Your task to perform on an android device: Search for the best selling phone on AliExpress Image 0: 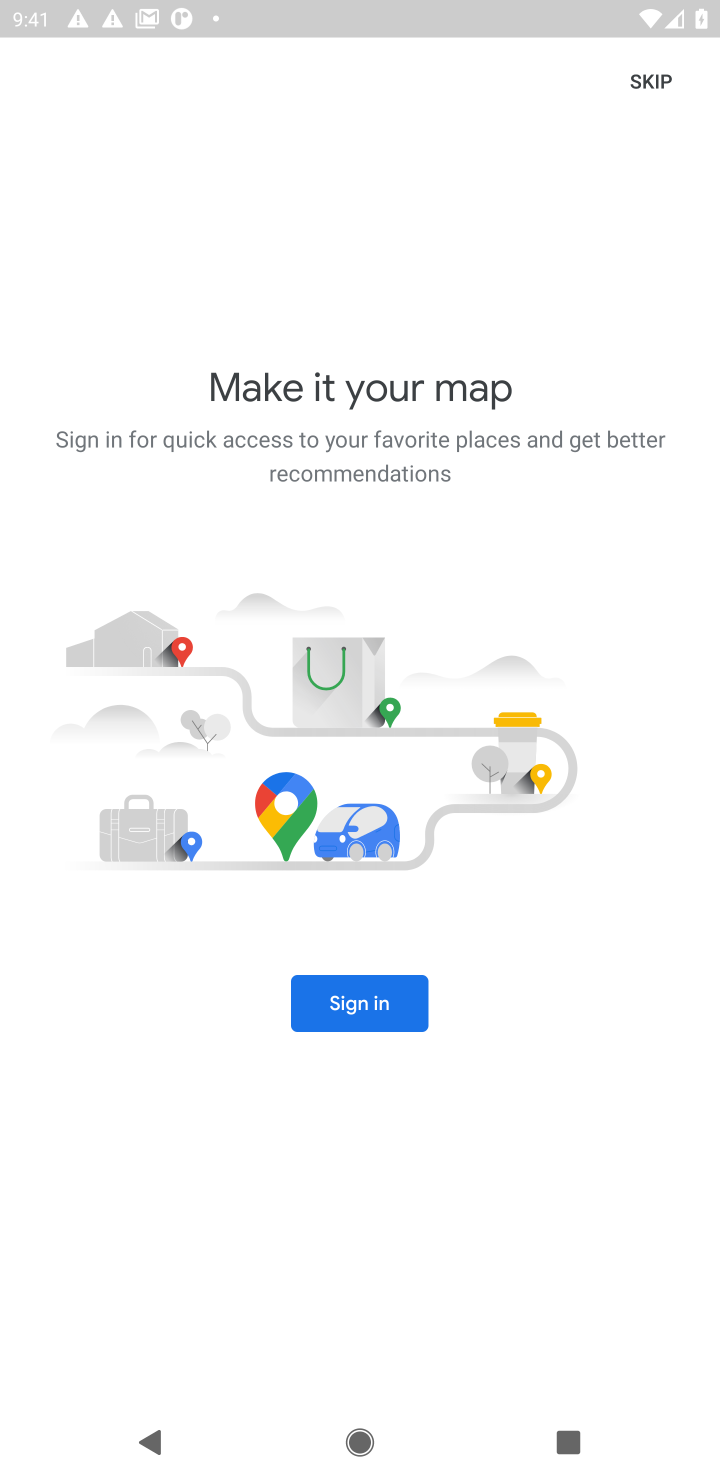
Step 0: press home button
Your task to perform on an android device: Search for the best selling phone on AliExpress Image 1: 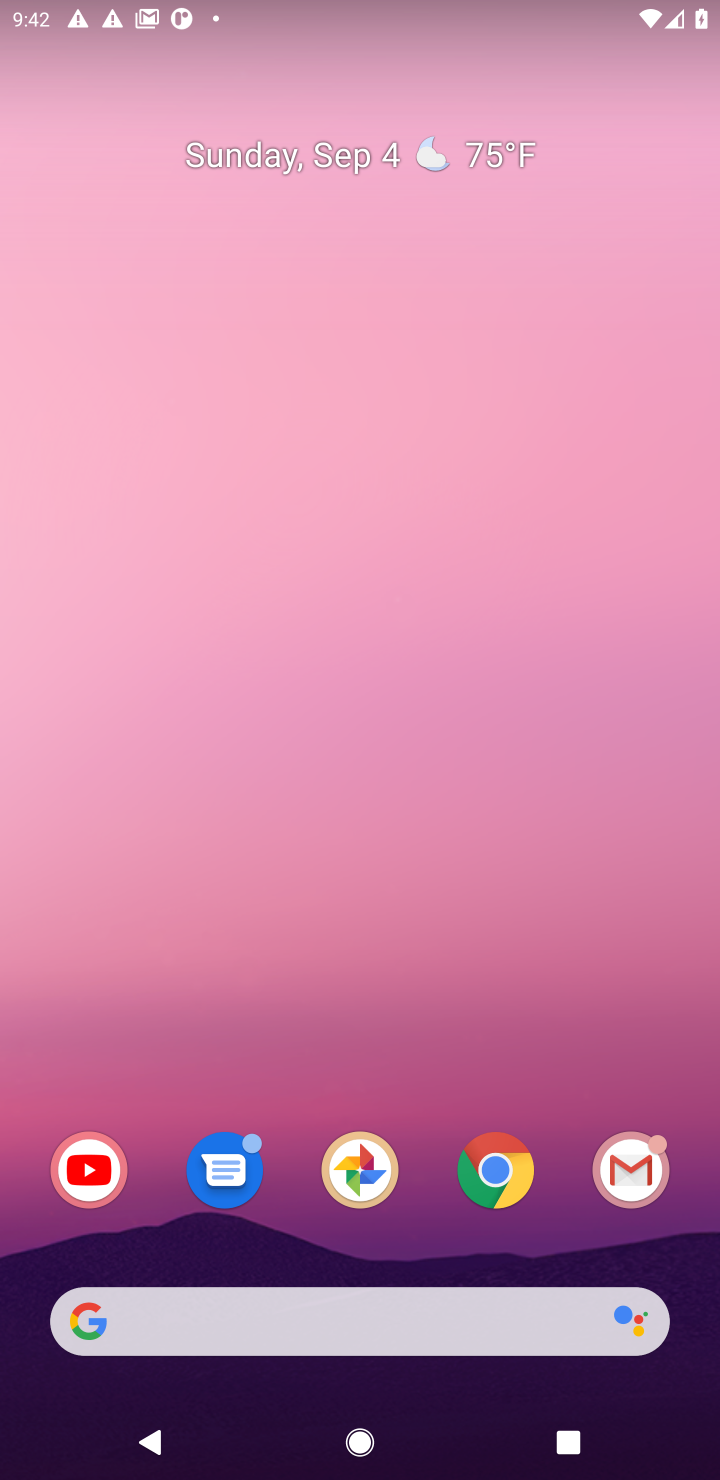
Step 1: click (493, 1155)
Your task to perform on an android device: Search for the best selling phone on AliExpress Image 2: 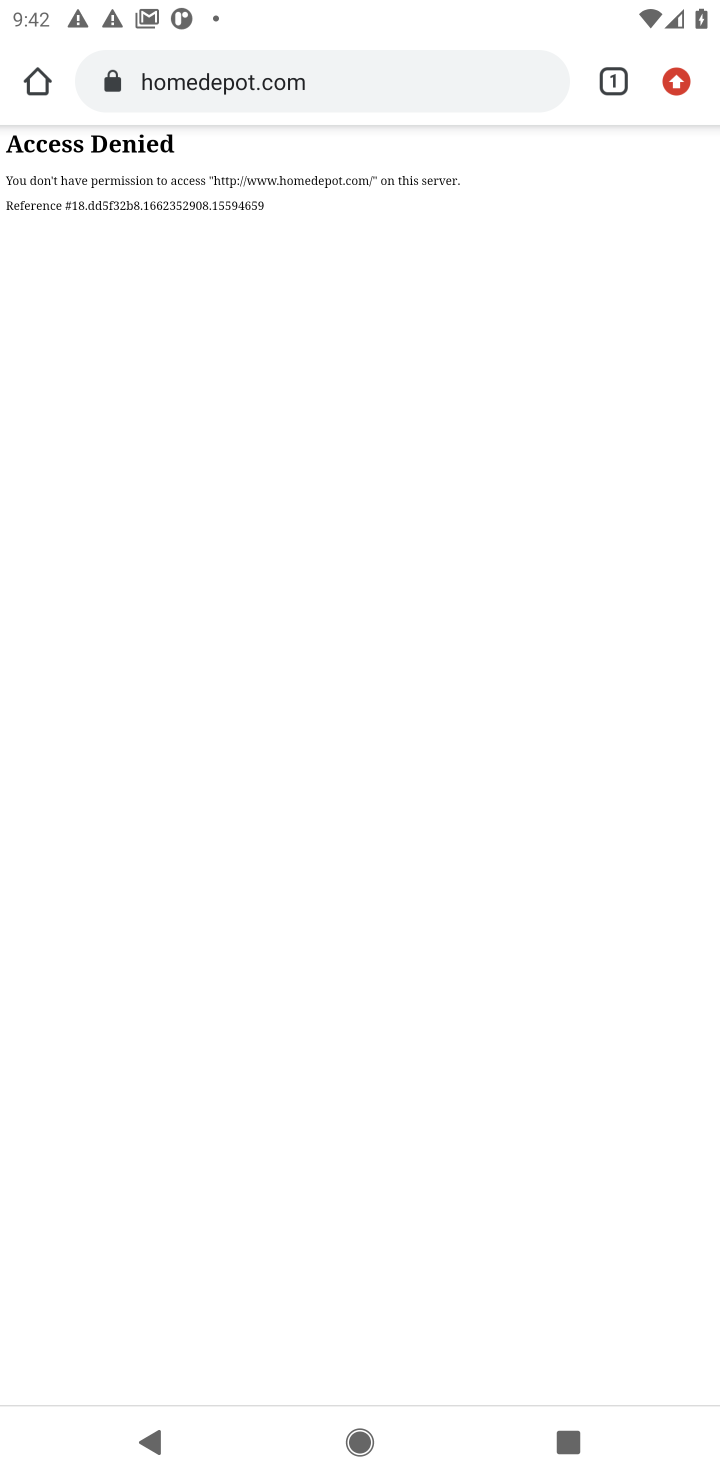
Step 2: click (310, 78)
Your task to perform on an android device: Search for the best selling phone on AliExpress Image 3: 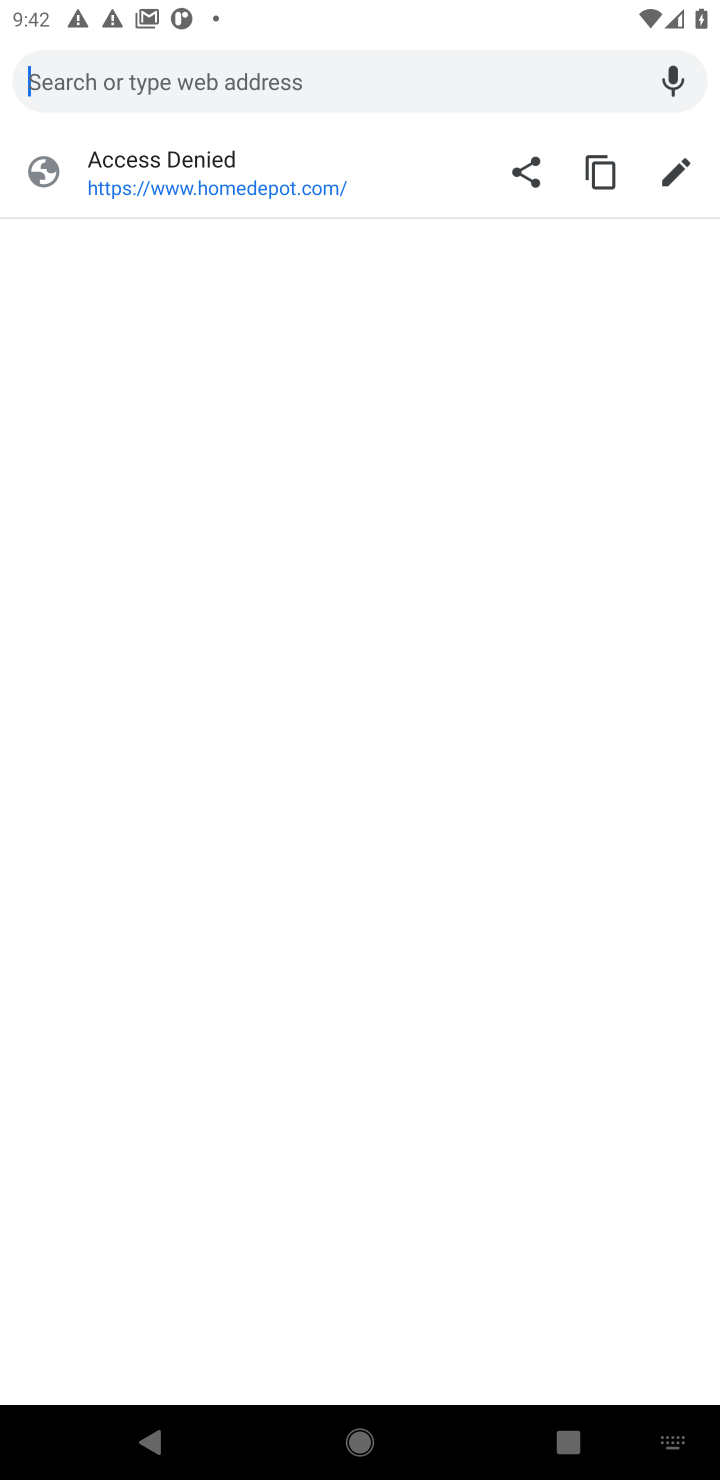
Step 3: type "AliExpress"
Your task to perform on an android device: Search for the best selling phone on AliExpress Image 4: 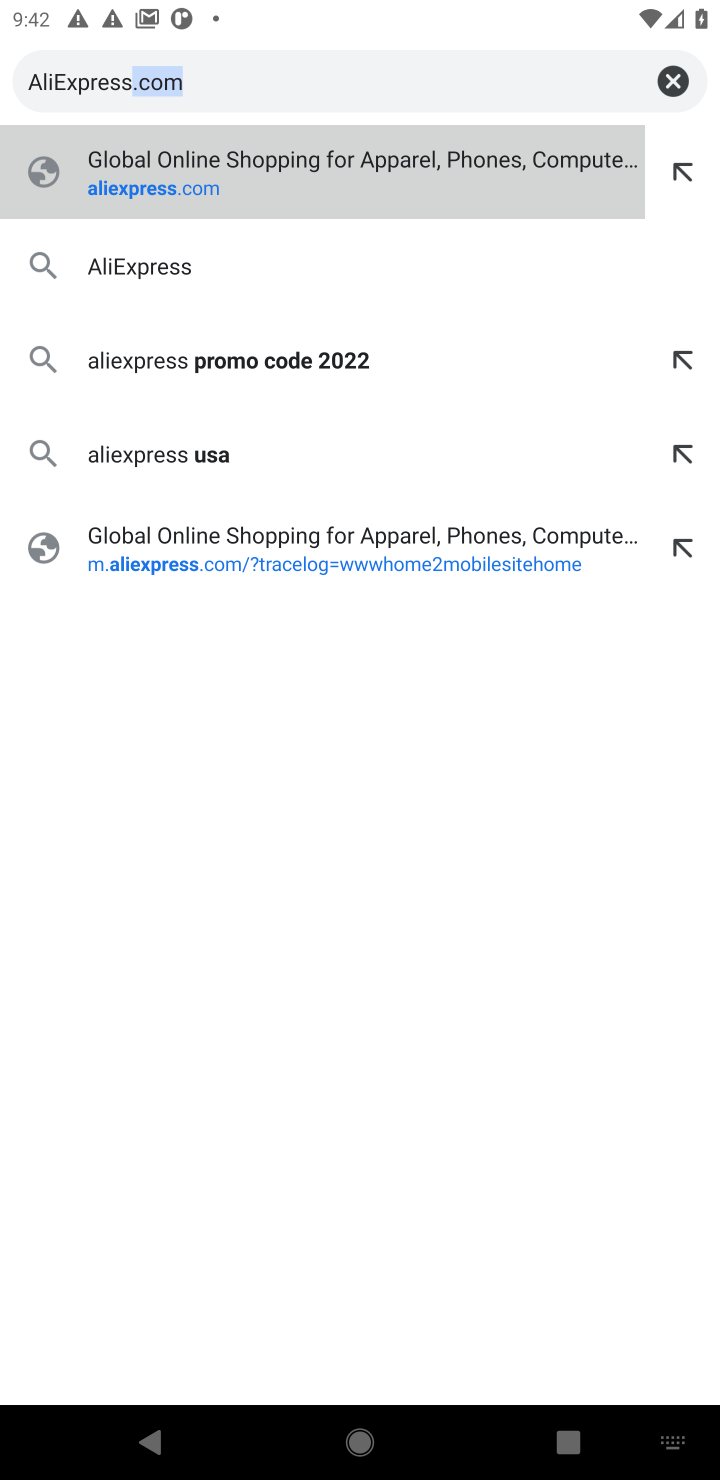
Step 4: click (393, 86)
Your task to perform on an android device: Search for the best selling phone on AliExpress Image 5: 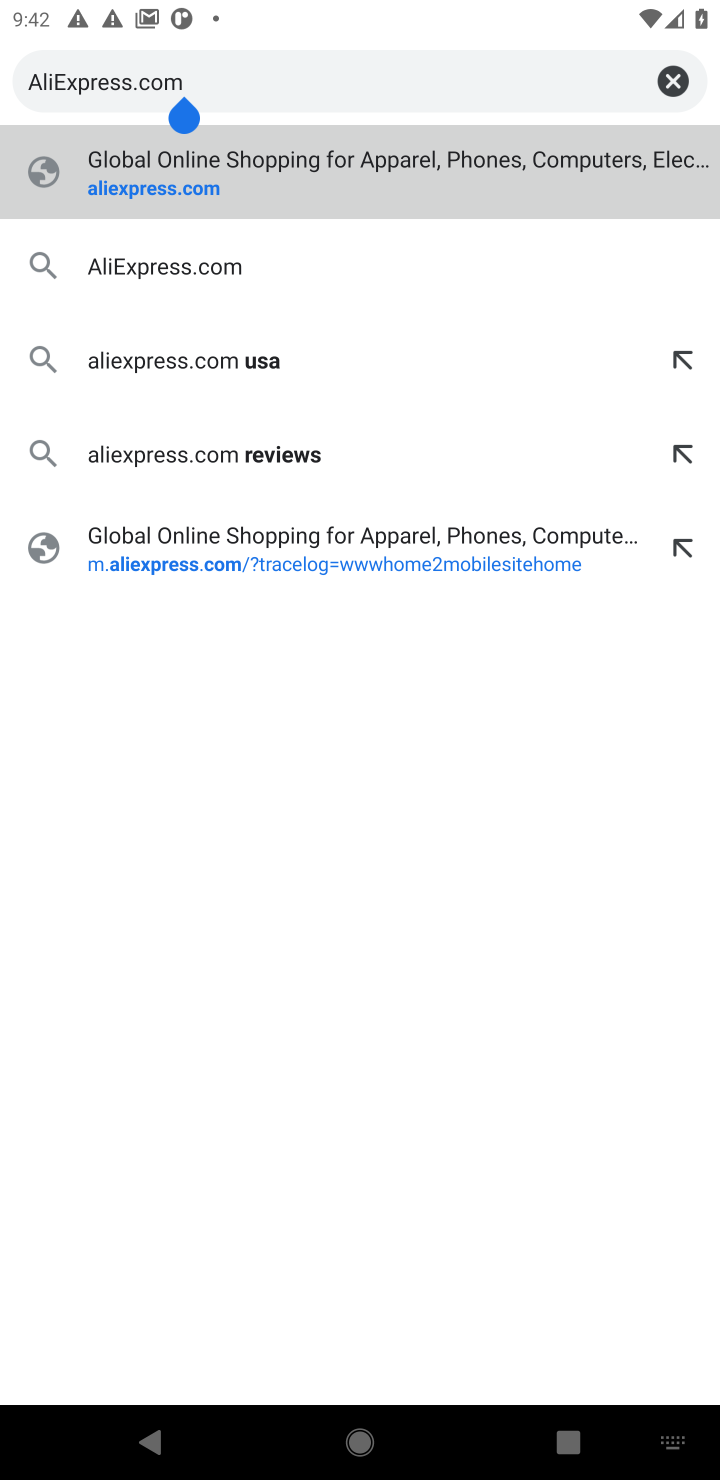
Step 5: click (189, 273)
Your task to perform on an android device: Search for the best selling phone on AliExpress Image 6: 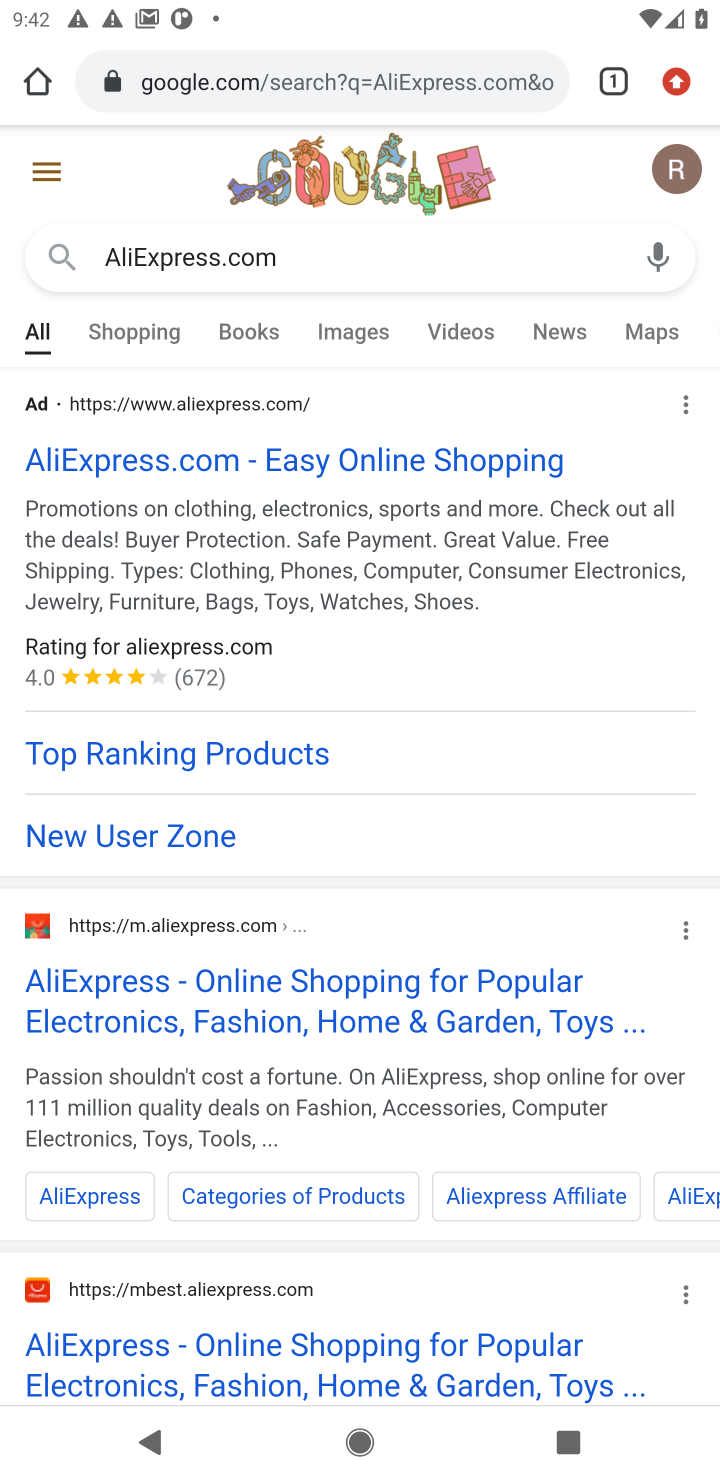
Step 6: click (180, 458)
Your task to perform on an android device: Search for the best selling phone on AliExpress Image 7: 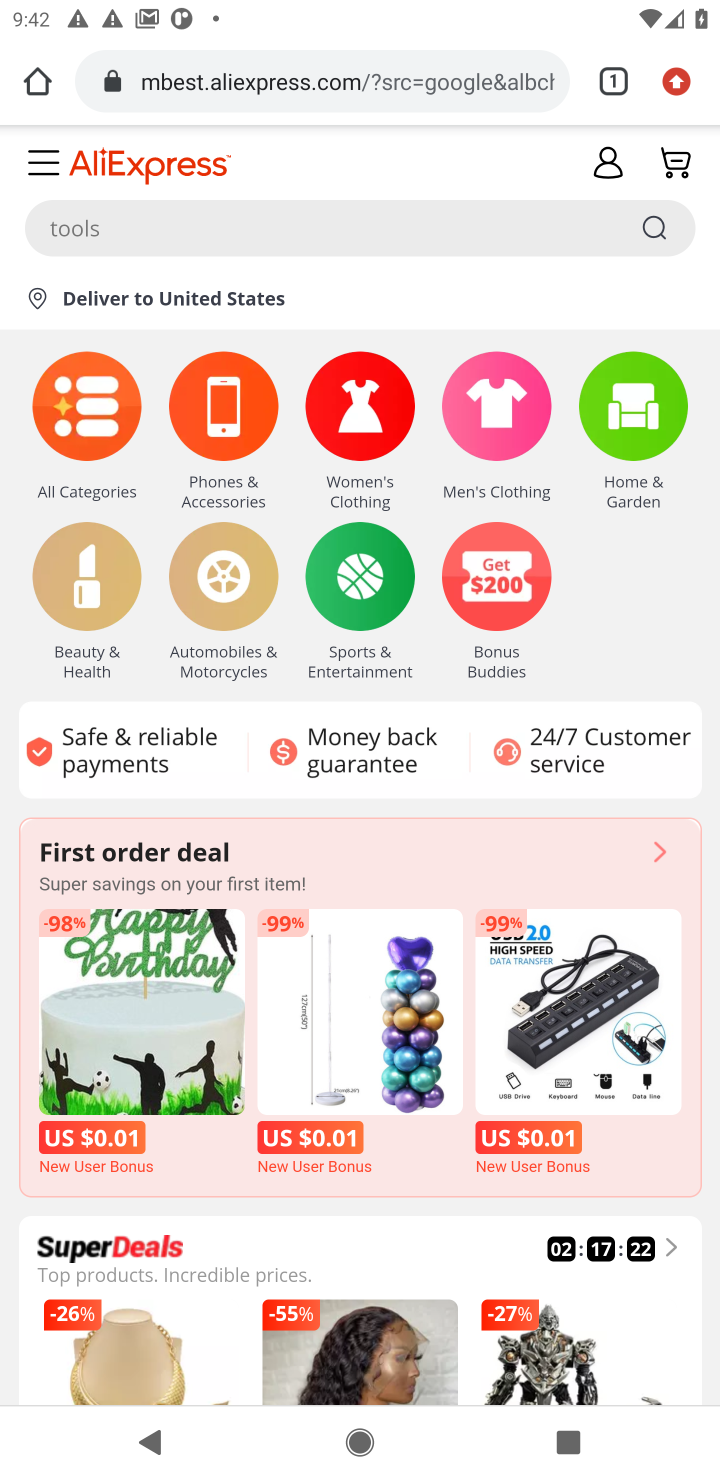
Step 7: click (465, 228)
Your task to perform on an android device: Search for the best selling phone on AliExpress Image 8: 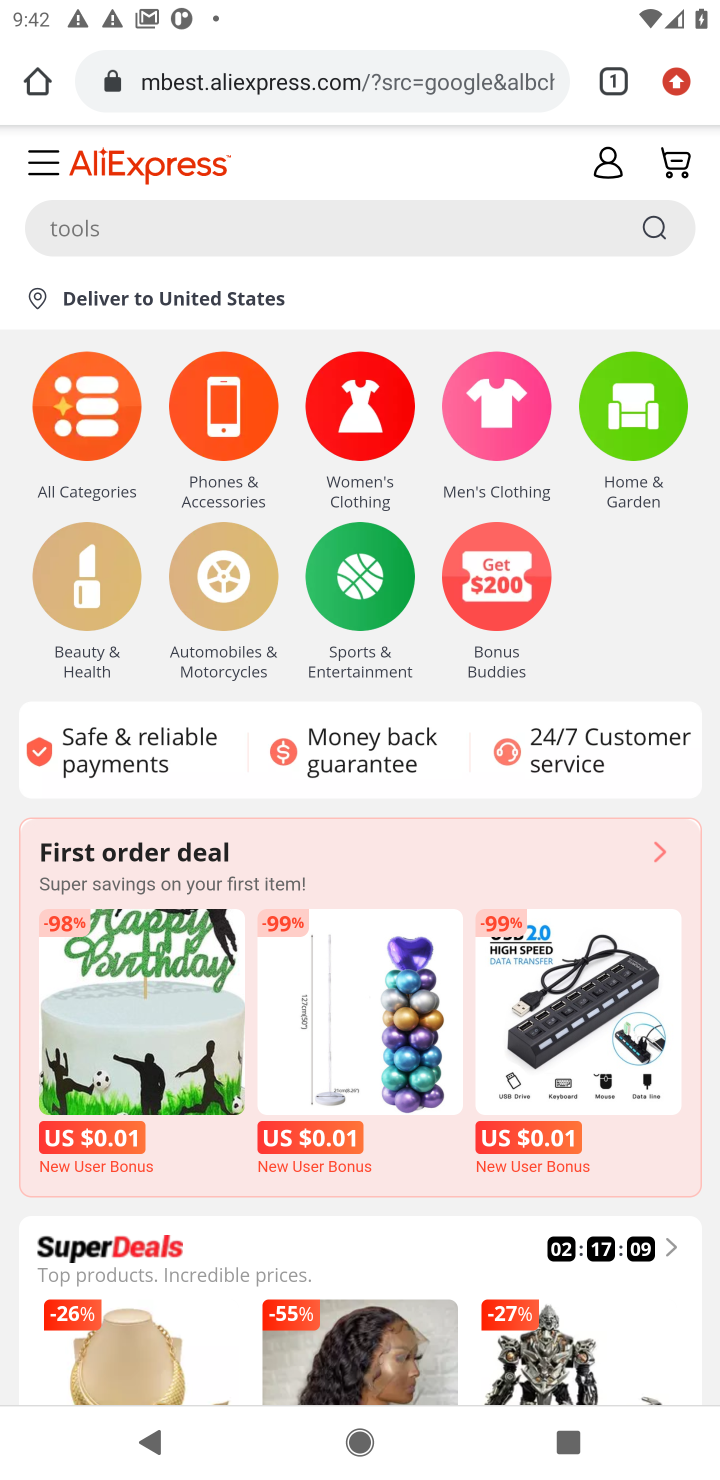
Step 8: click (397, 215)
Your task to perform on an android device: Search for the best selling phone on AliExpress Image 9: 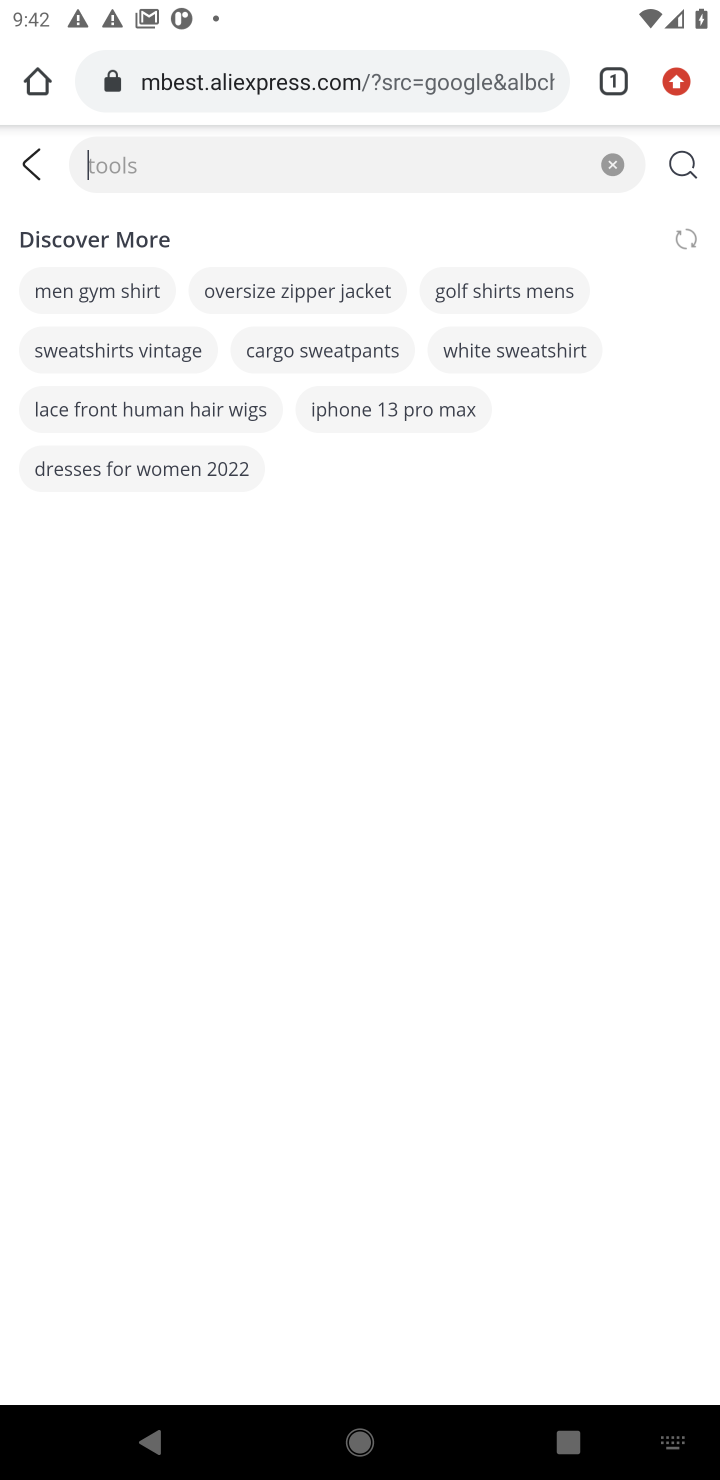
Step 9: type " the best selling phone"
Your task to perform on an android device: Search for the best selling phone on AliExpress Image 10: 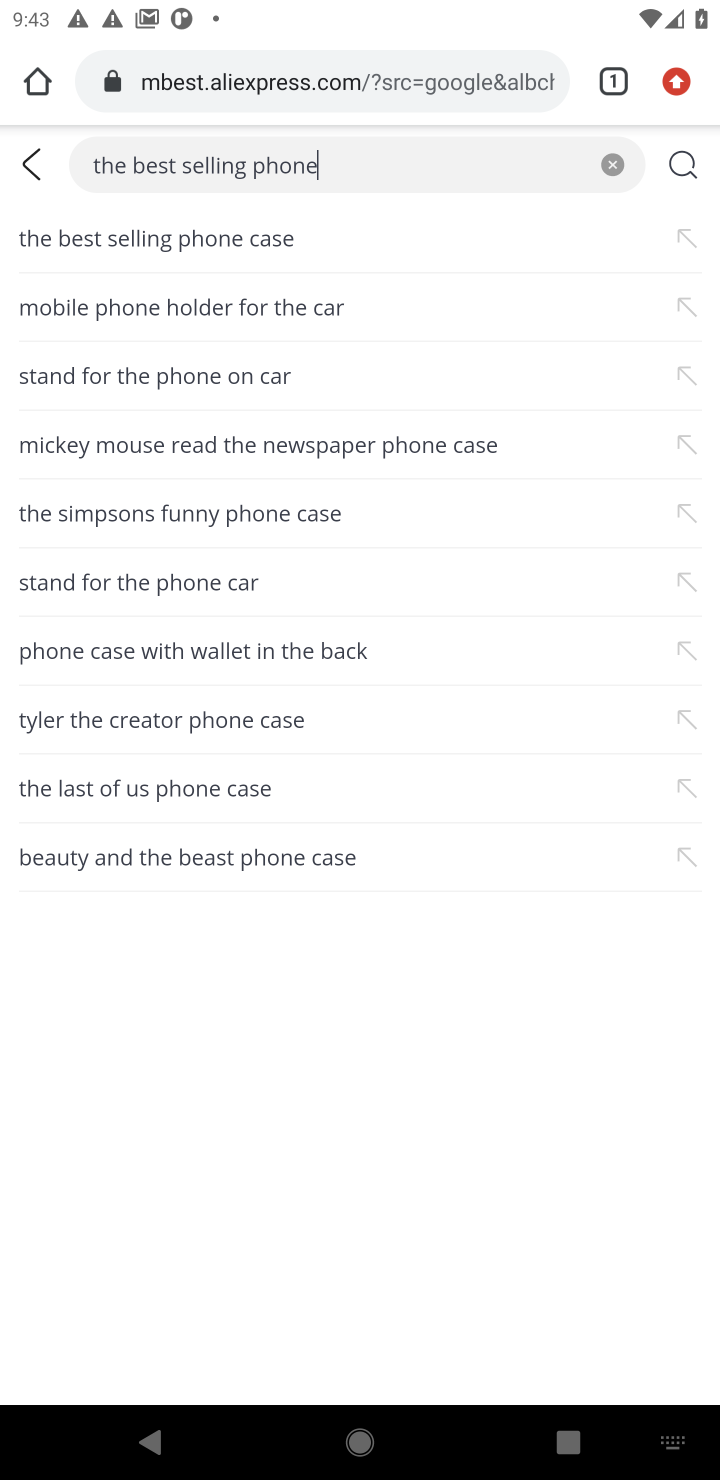
Step 10: click (678, 154)
Your task to perform on an android device: Search for the best selling phone on AliExpress Image 11: 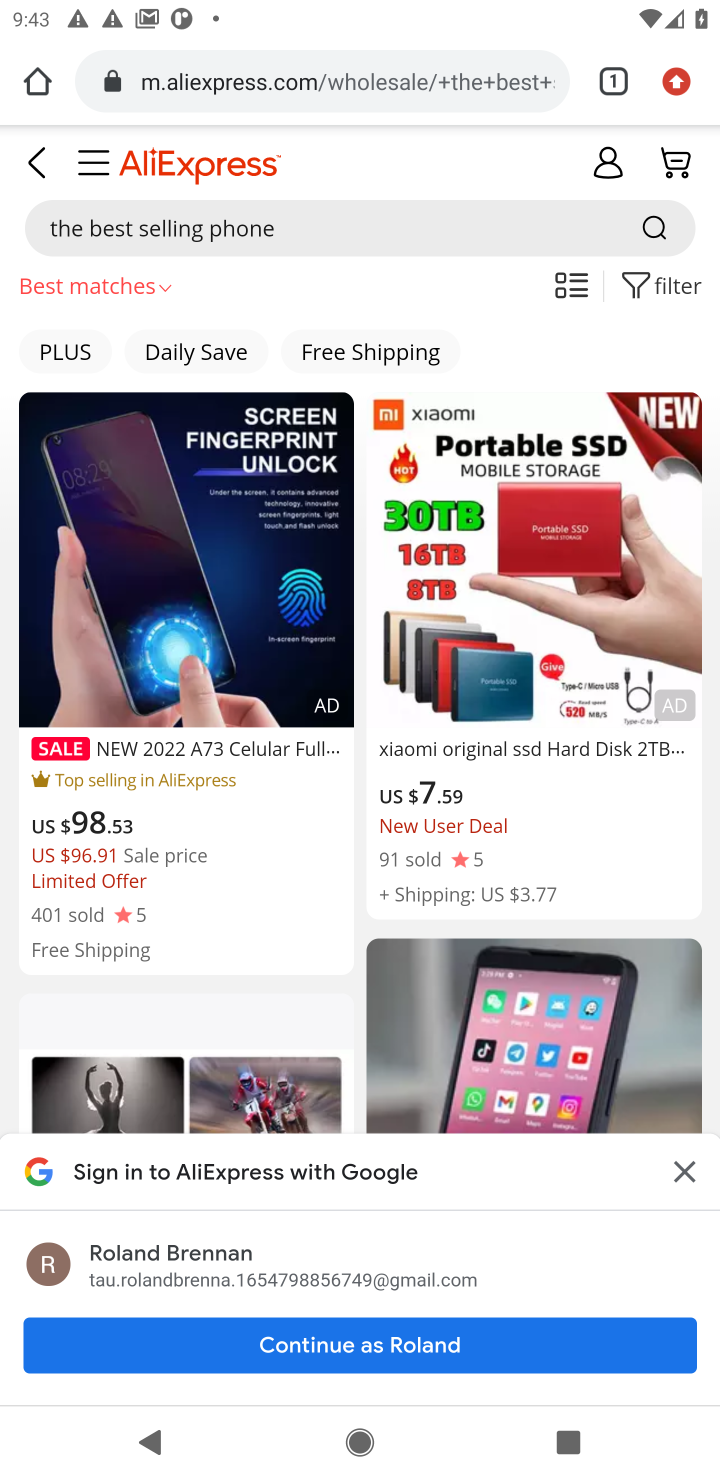
Step 11: task complete